Your task to perform on an android device: Search for the best 4K TV Image 0: 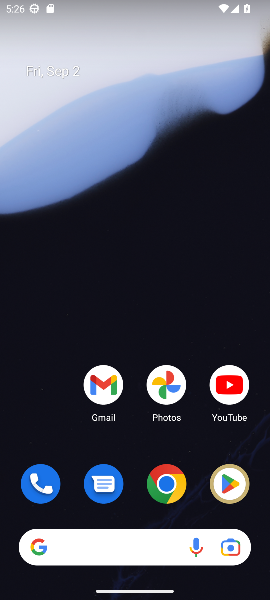
Step 0: click (167, 477)
Your task to perform on an android device: Search for the best 4K TV Image 1: 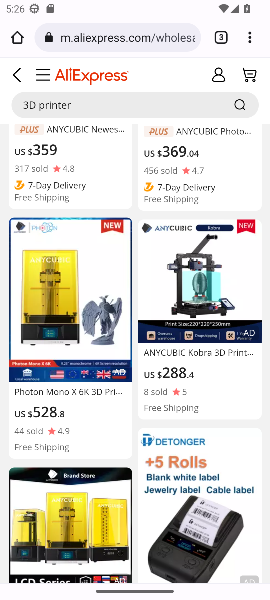
Step 1: click (141, 38)
Your task to perform on an android device: Search for the best 4K TV Image 2: 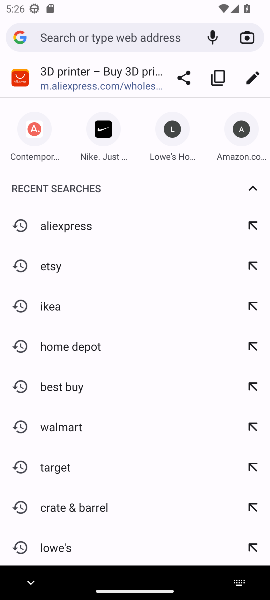
Step 2: type "best 4K TV"
Your task to perform on an android device: Search for the best 4K TV Image 3: 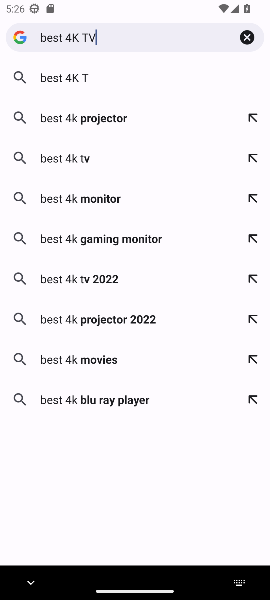
Step 3: press enter
Your task to perform on an android device: Search for the best 4K TV Image 4: 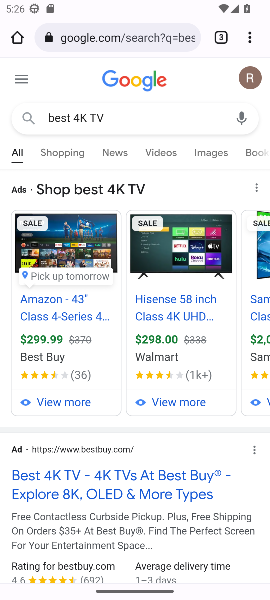
Step 4: task complete